Your task to perform on an android device: delete browsing data in the chrome app Image 0: 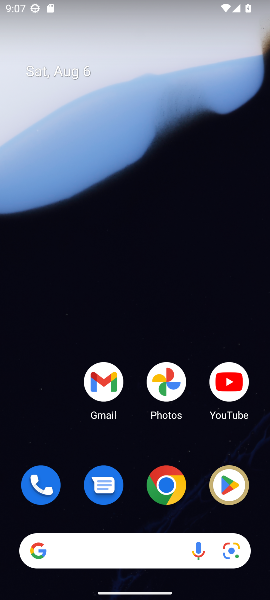
Step 0: drag from (195, 447) to (172, 0)
Your task to perform on an android device: delete browsing data in the chrome app Image 1: 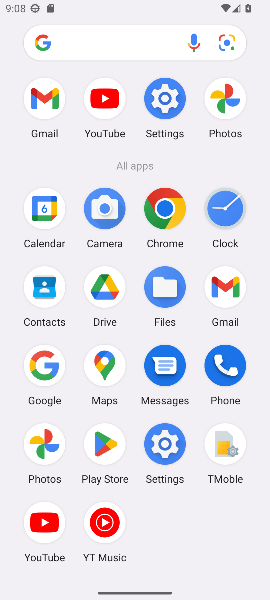
Step 1: click (164, 209)
Your task to perform on an android device: delete browsing data in the chrome app Image 2: 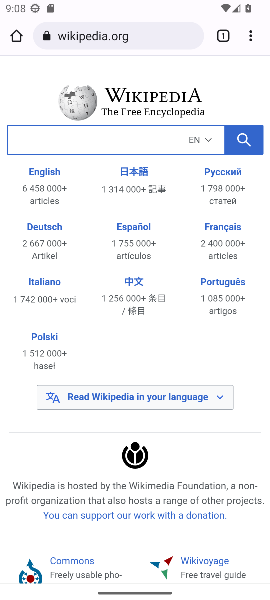
Step 2: drag from (251, 32) to (147, 150)
Your task to perform on an android device: delete browsing data in the chrome app Image 3: 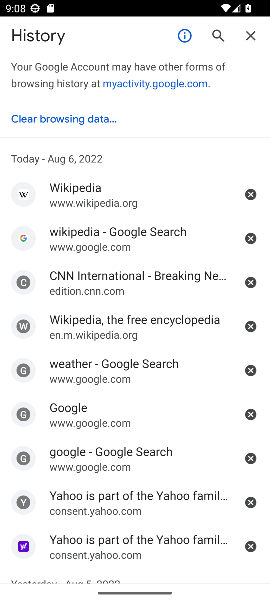
Step 3: click (89, 115)
Your task to perform on an android device: delete browsing data in the chrome app Image 4: 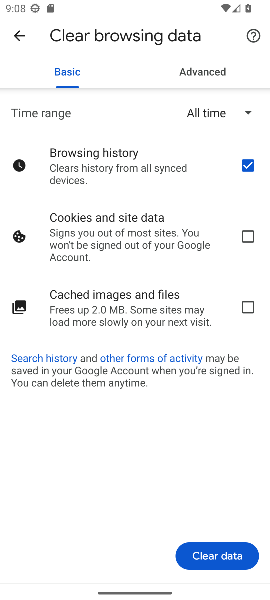
Step 4: click (246, 232)
Your task to perform on an android device: delete browsing data in the chrome app Image 5: 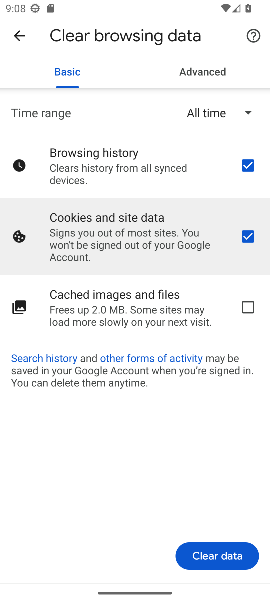
Step 5: click (247, 306)
Your task to perform on an android device: delete browsing data in the chrome app Image 6: 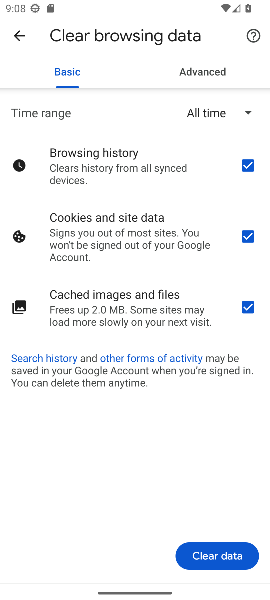
Step 6: click (198, 552)
Your task to perform on an android device: delete browsing data in the chrome app Image 7: 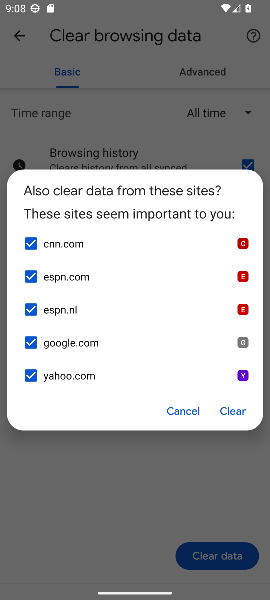
Step 7: click (232, 410)
Your task to perform on an android device: delete browsing data in the chrome app Image 8: 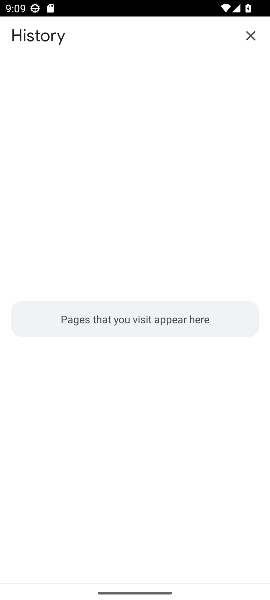
Step 8: task complete